Your task to perform on an android device: star an email in the gmail app Image 0: 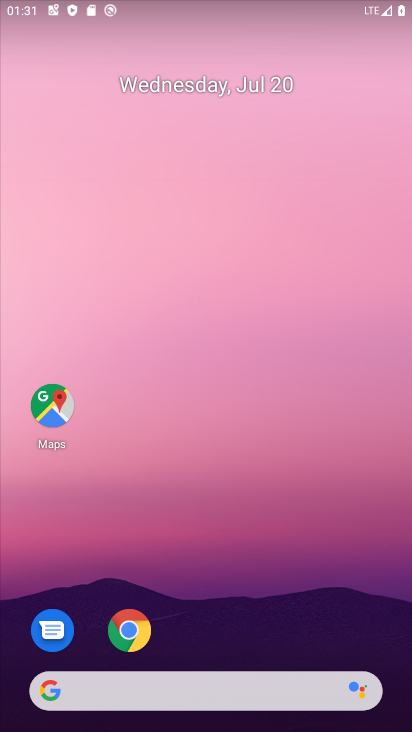
Step 0: drag from (320, 562) to (312, 106)
Your task to perform on an android device: star an email in the gmail app Image 1: 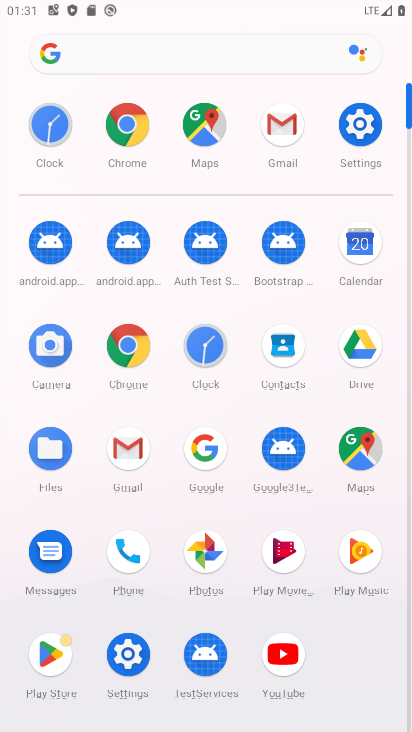
Step 1: click (283, 142)
Your task to perform on an android device: star an email in the gmail app Image 2: 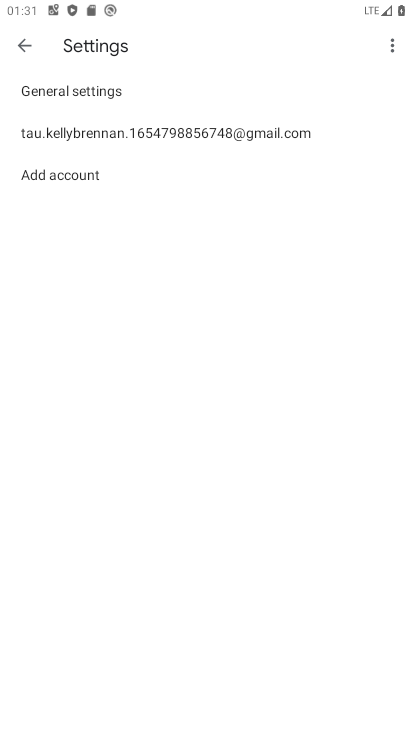
Step 2: click (26, 45)
Your task to perform on an android device: star an email in the gmail app Image 3: 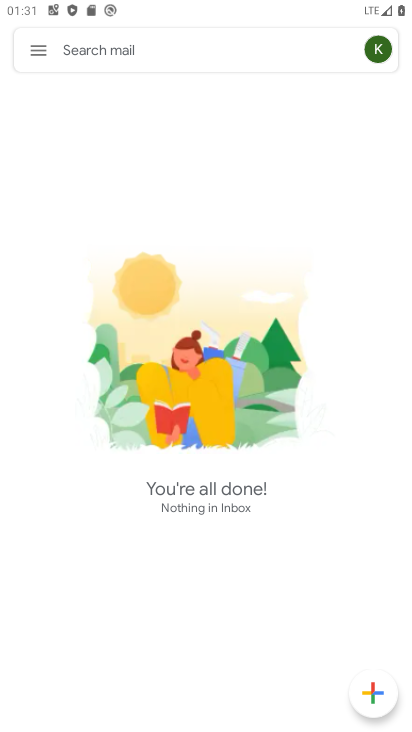
Step 3: click (43, 47)
Your task to perform on an android device: star an email in the gmail app Image 4: 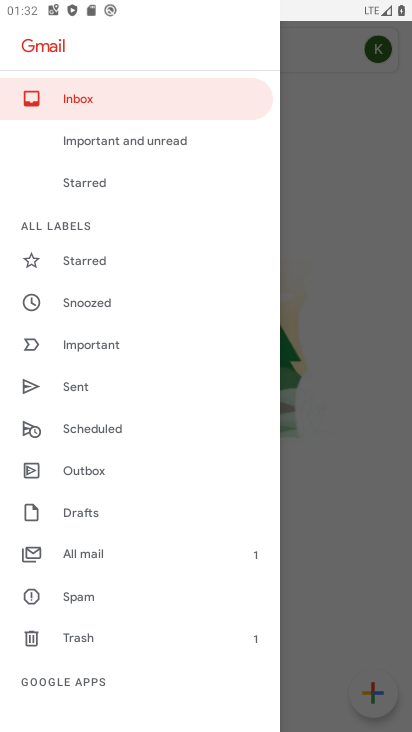
Step 4: click (95, 550)
Your task to perform on an android device: star an email in the gmail app Image 5: 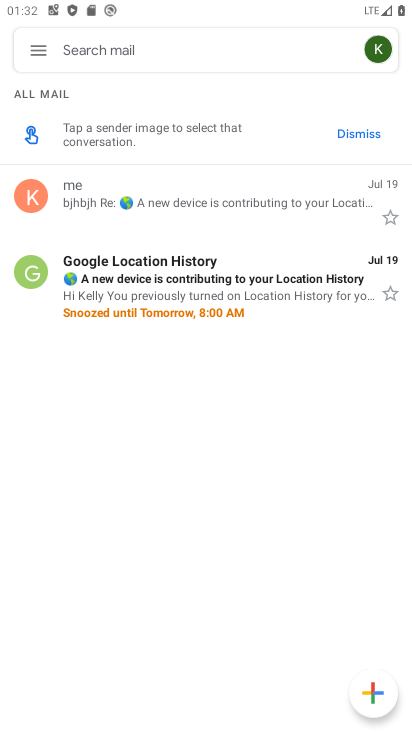
Step 5: click (386, 214)
Your task to perform on an android device: star an email in the gmail app Image 6: 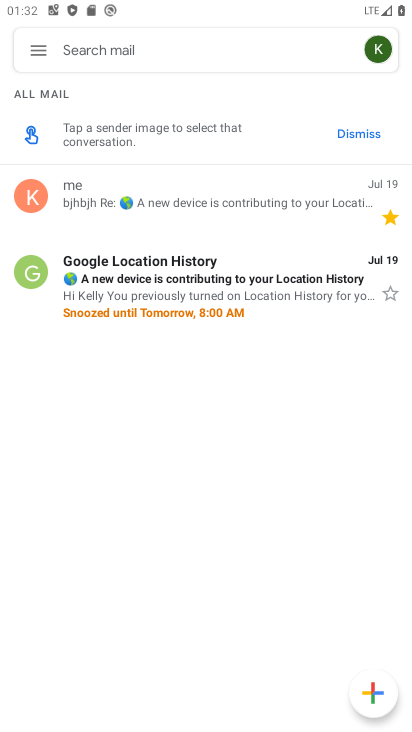
Step 6: task complete